Your task to perform on an android device: visit the assistant section in the google photos Image 0: 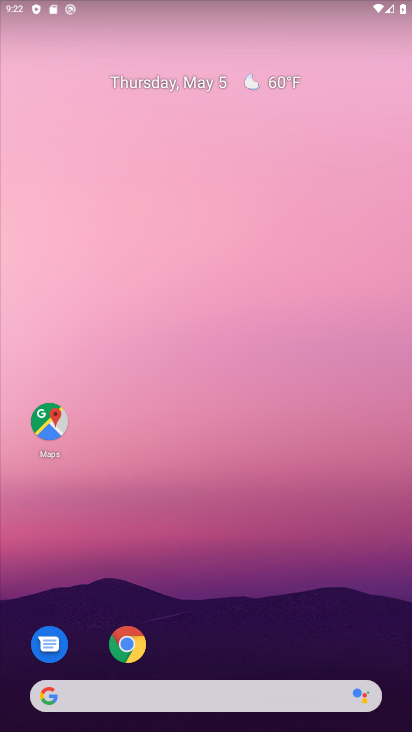
Step 0: drag from (378, 612) to (363, 6)
Your task to perform on an android device: visit the assistant section in the google photos Image 1: 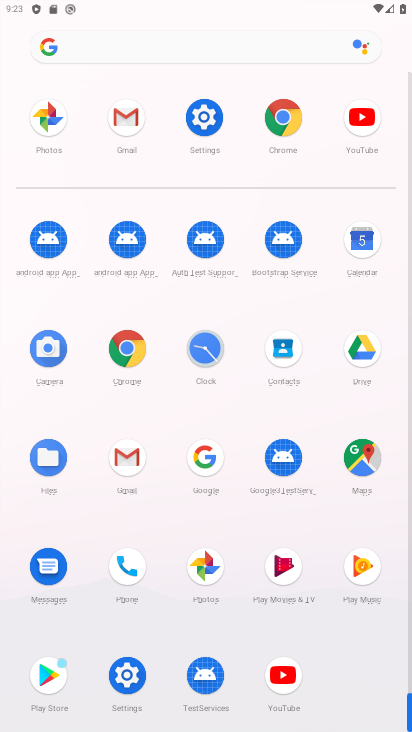
Step 1: click (204, 572)
Your task to perform on an android device: visit the assistant section in the google photos Image 2: 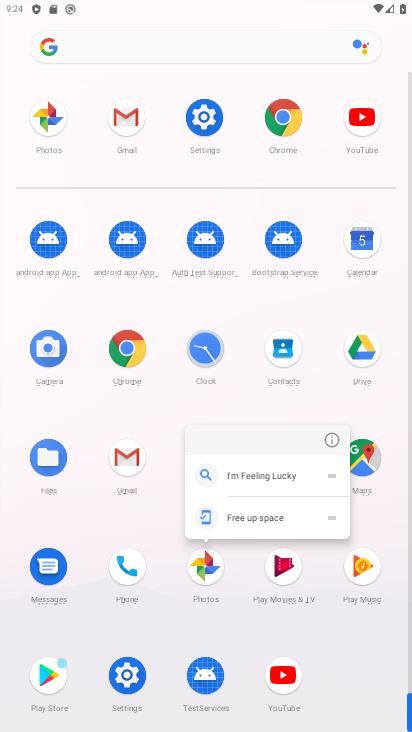
Step 2: click (206, 563)
Your task to perform on an android device: visit the assistant section in the google photos Image 3: 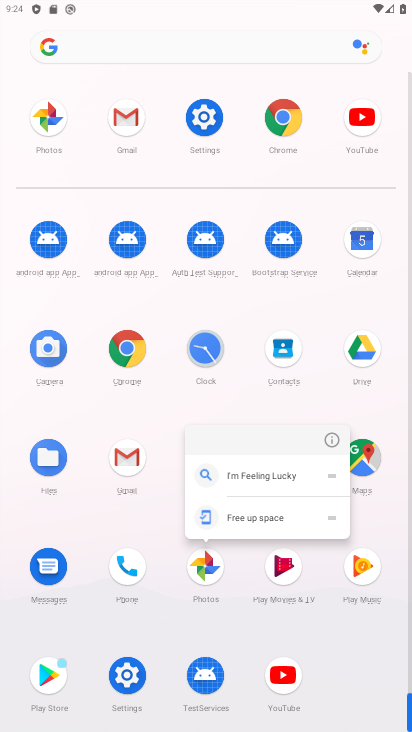
Step 3: click (208, 564)
Your task to perform on an android device: visit the assistant section in the google photos Image 4: 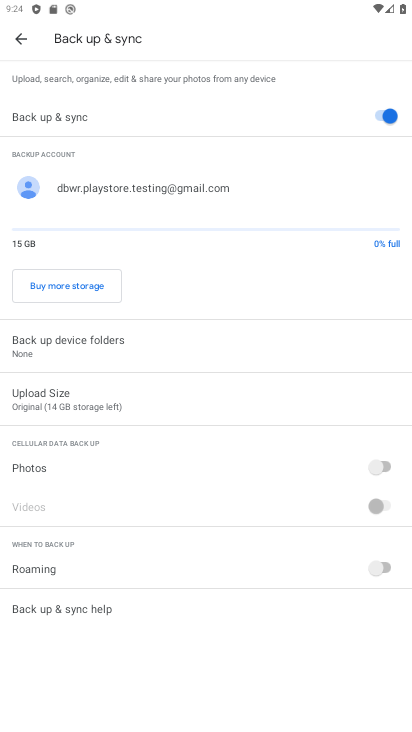
Step 4: click (6, 42)
Your task to perform on an android device: visit the assistant section in the google photos Image 5: 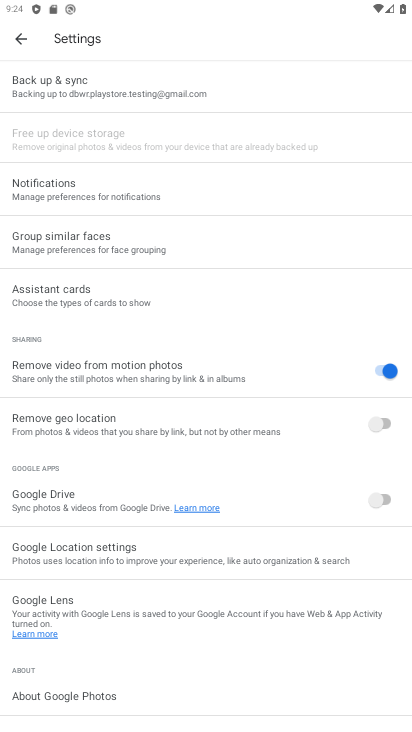
Step 5: click (16, 39)
Your task to perform on an android device: visit the assistant section in the google photos Image 6: 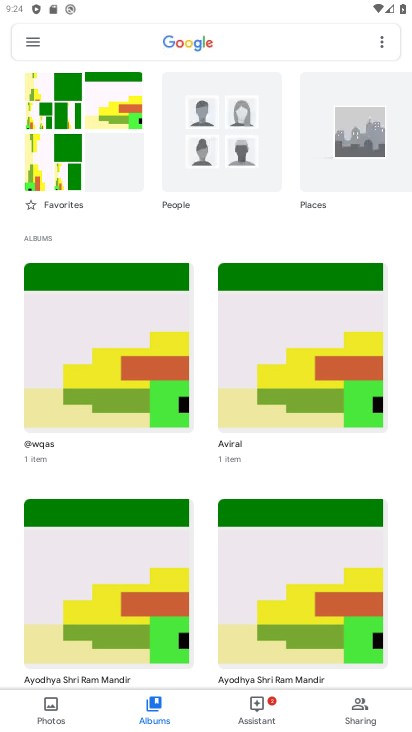
Step 6: click (254, 713)
Your task to perform on an android device: visit the assistant section in the google photos Image 7: 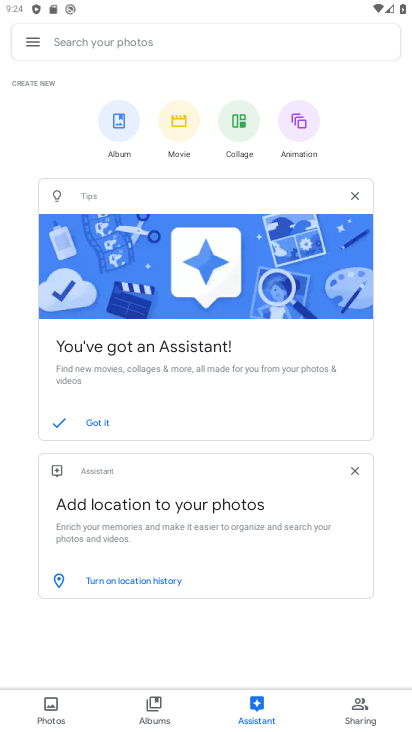
Step 7: task complete